Your task to perform on an android device: Do I have any events tomorrow? Image 0: 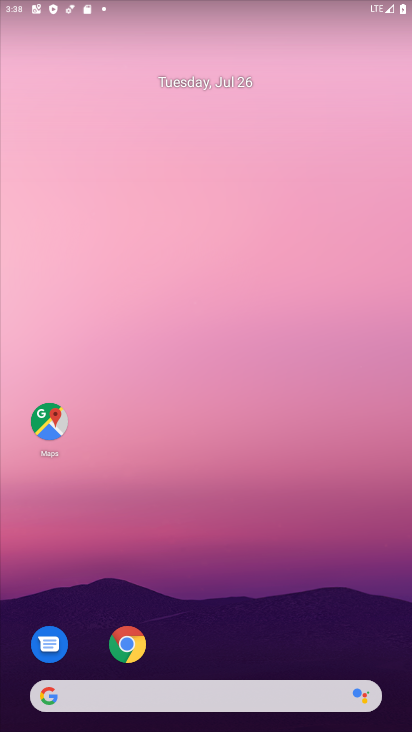
Step 0: drag from (218, 677) to (192, 283)
Your task to perform on an android device: Do I have any events tomorrow? Image 1: 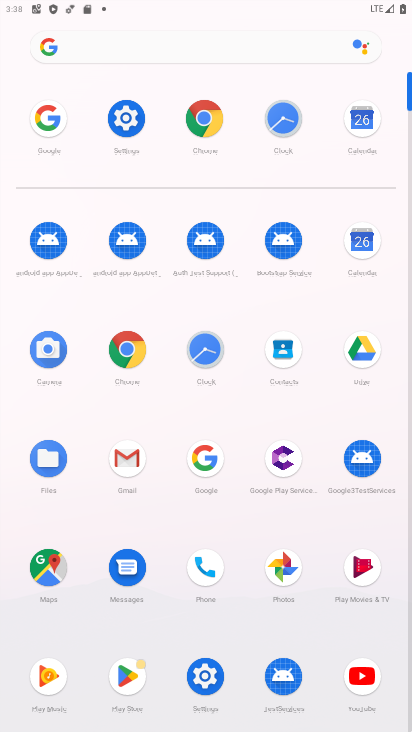
Step 1: click (357, 247)
Your task to perform on an android device: Do I have any events tomorrow? Image 2: 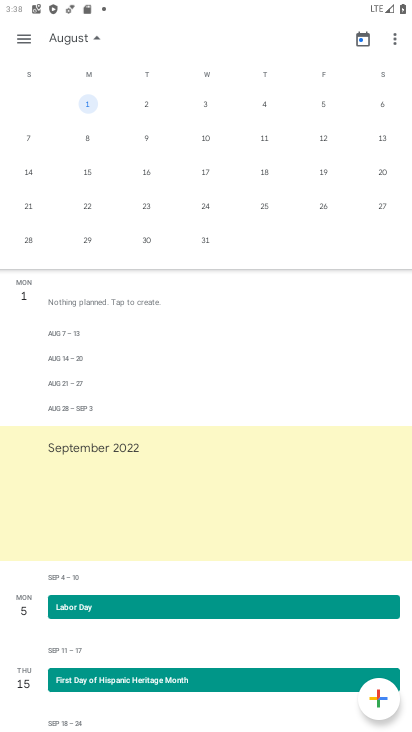
Step 2: drag from (8, 156) to (410, 193)
Your task to perform on an android device: Do I have any events tomorrow? Image 3: 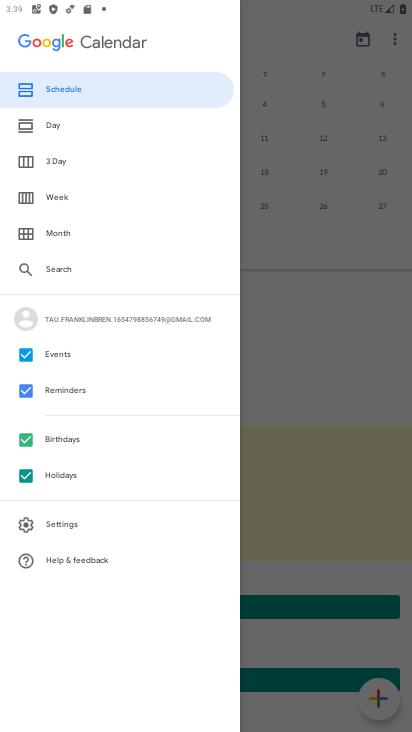
Step 3: click (305, 240)
Your task to perform on an android device: Do I have any events tomorrow? Image 4: 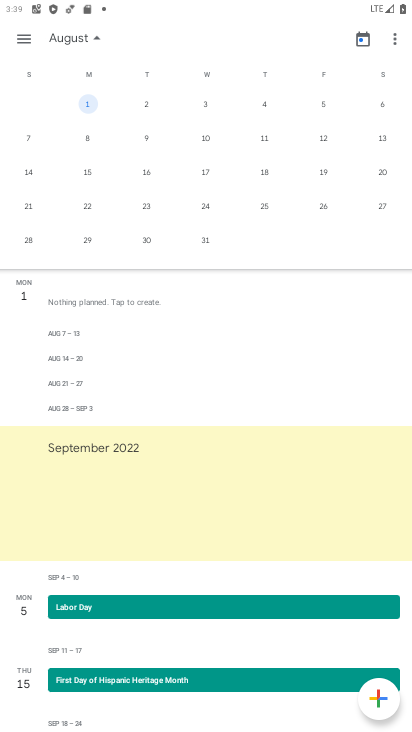
Step 4: click (255, 41)
Your task to perform on an android device: Do I have any events tomorrow? Image 5: 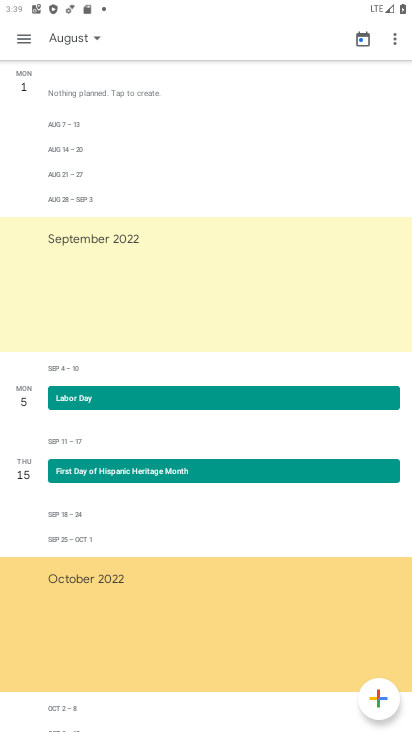
Step 5: click (65, 40)
Your task to perform on an android device: Do I have any events tomorrow? Image 6: 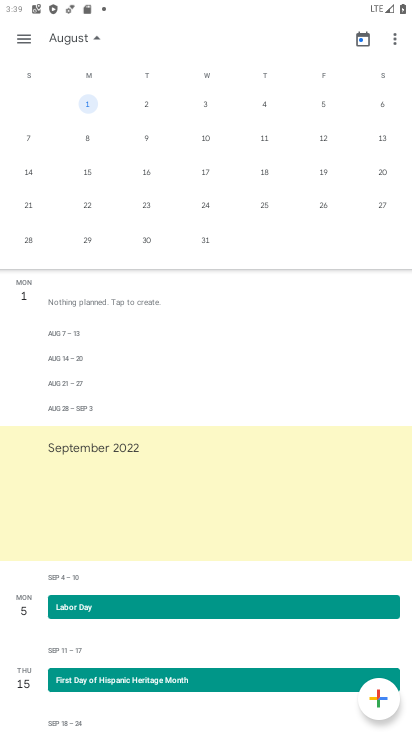
Step 6: drag from (59, 148) to (410, 169)
Your task to perform on an android device: Do I have any events tomorrow? Image 7: 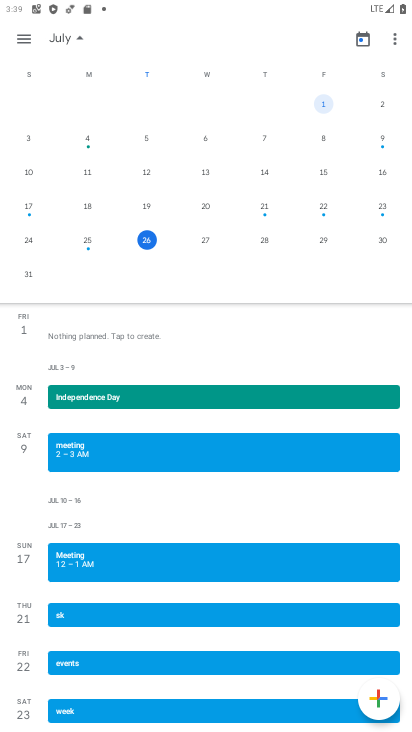
Step 7: click (198, 241)
Your task to perform on an android device: Do I have any events tomorrow? Image 8: 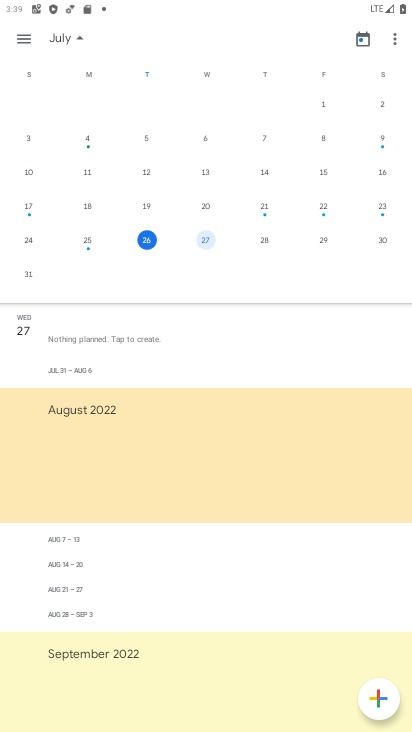
Step 8: task complete